Your task to perform on an android device: Open the calendar Image 0: 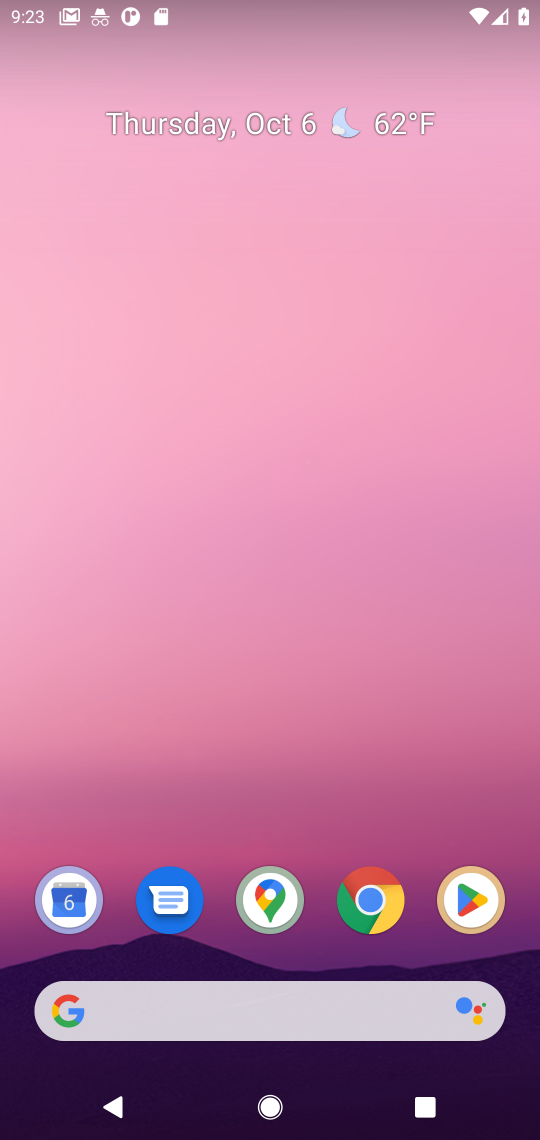
Step 0: press home button
Your task to perform on an android device: Open the calendar Image 1: 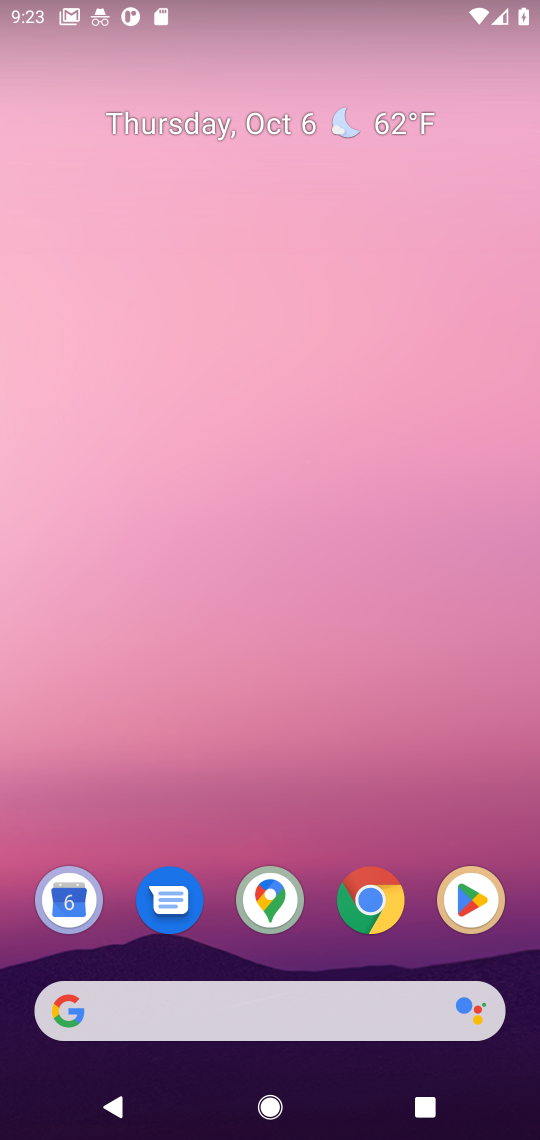
Step 1: drag from (145, 755) to (189, 70)
Your task to perform on an android device: Open the calendar Image 2: 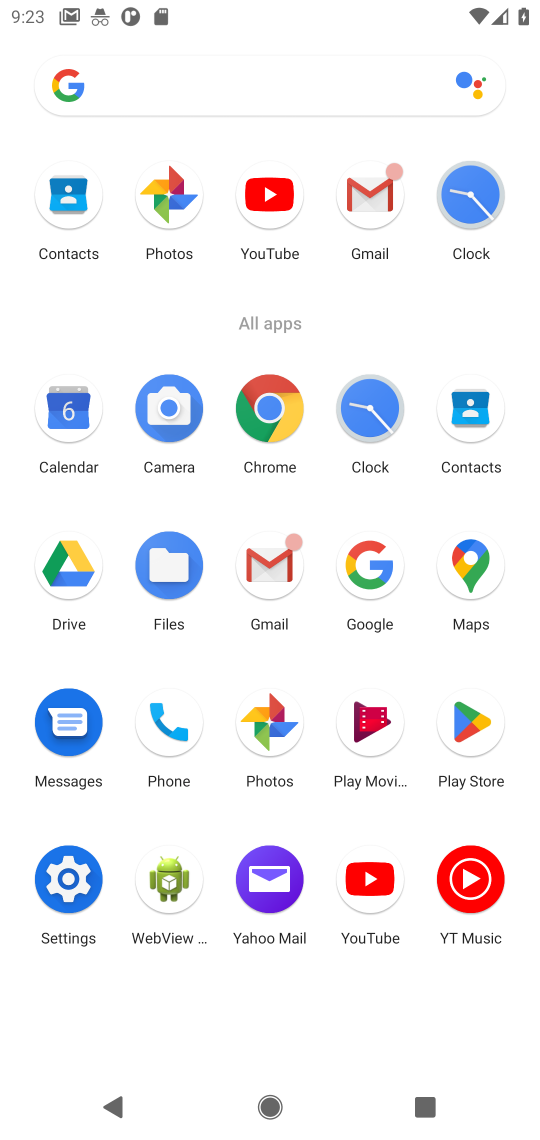
Step 2: click (72, 440)
Your task to perform on an android device: Open the calendar Image 3: 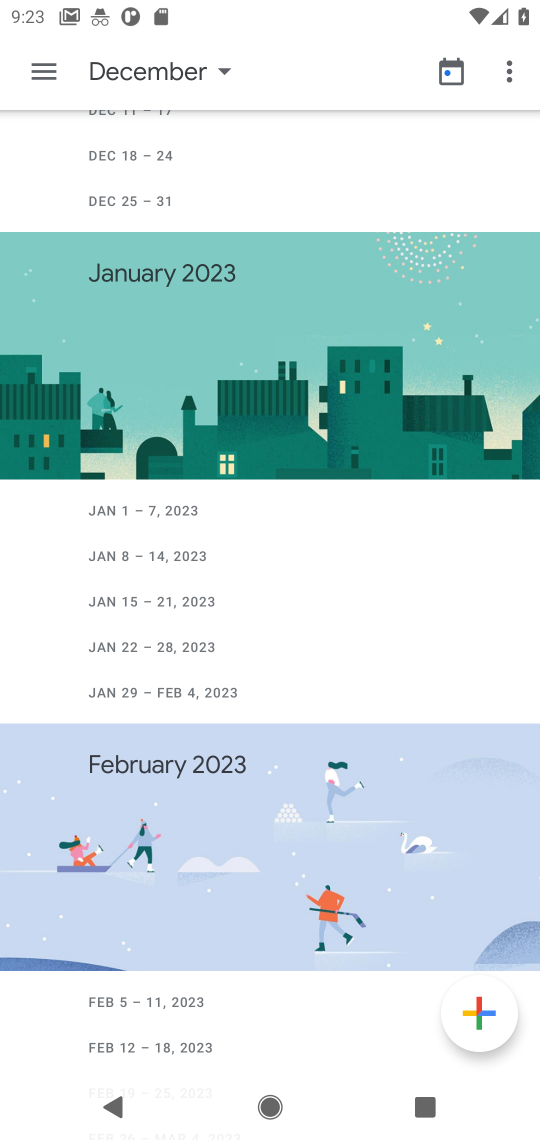
Step 3: task complete